Your task to perform on an android device: How big is the earth? Image 0: 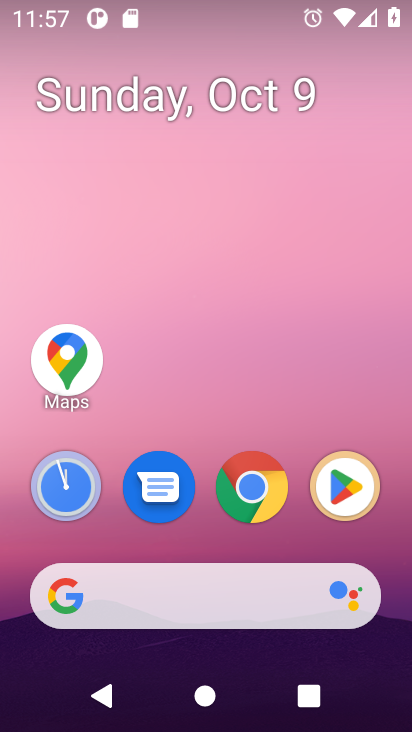
Step 0: drag from (215, 561) to (220, 56)
Your task to perform on an android device: How big is the earth? Image 1: 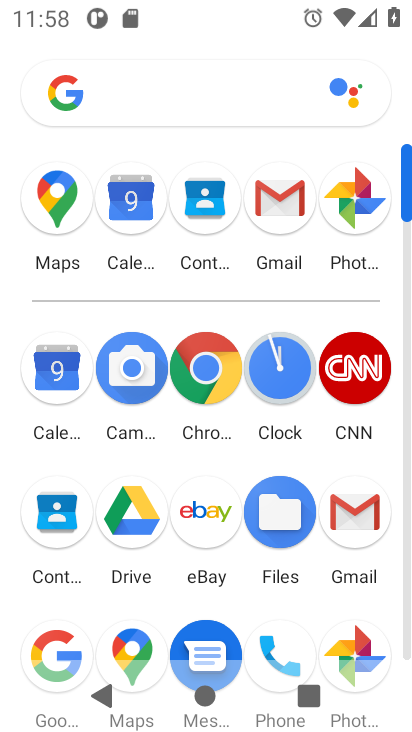
Step 1: click (208, 366)
Your task to perform on an android device: How big is the earth? Image 2: 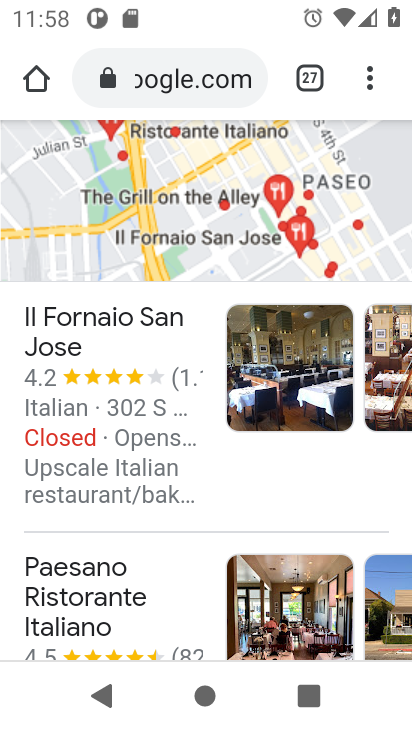
Step 2: drag from (301, 149) to (282, 509)
Your task to perform on an android device: How big is the earth? Image 3: 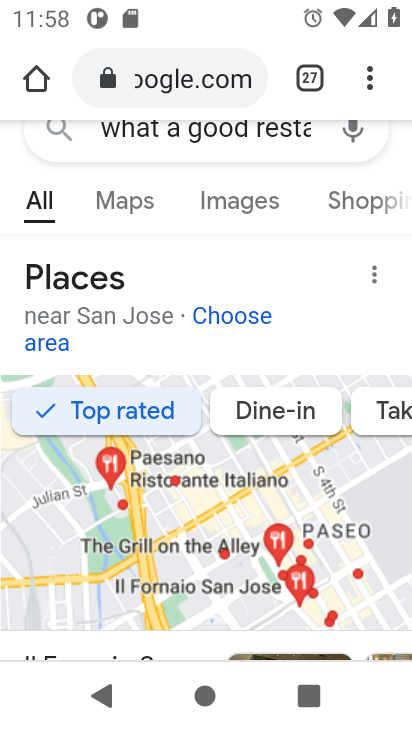
Step 3: drag from (368, 86) to (84, 162)
Your task to perform on an android device: How big is the earth? Image 4: 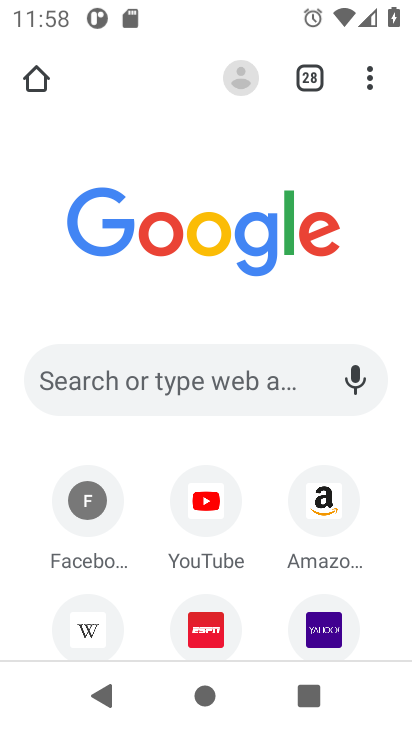
Step 4: click (244, 381)
Your task to perform on an android device: How big is the earth? Image 5: 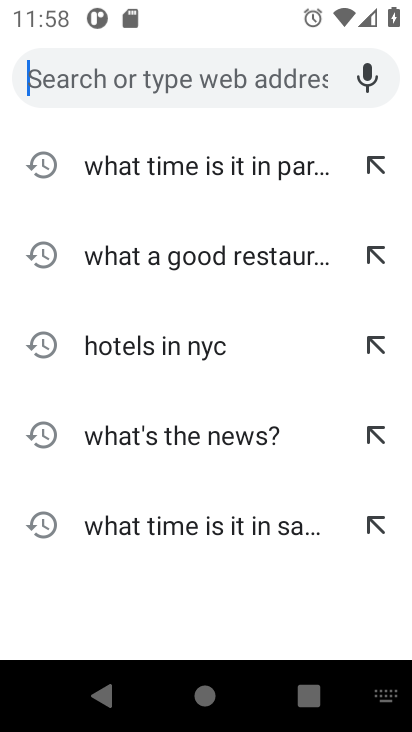
Step 5: type "How big is the earth?"
Your task to perform on an android device: How big is the earth? Image 6: 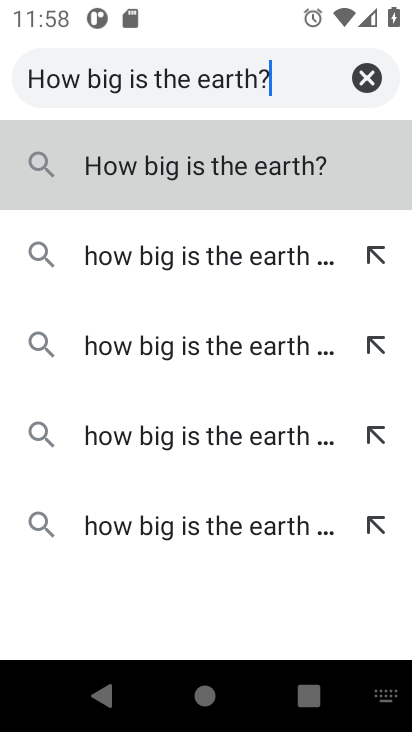
Step 6: click (305, 176)
Your task to perform on an android device: How big is the earth? Image 7: 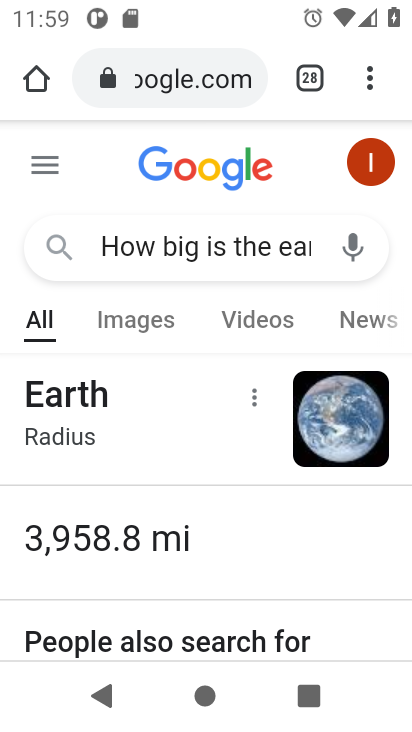
Step 7: task complete